Your task to perform on an android device: check data usage Image 0: 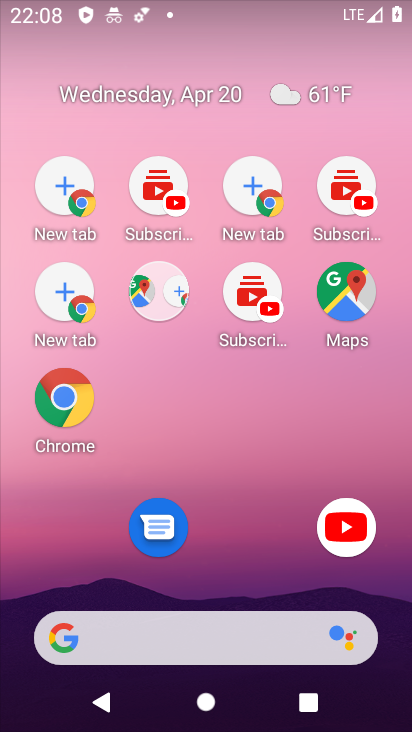
Step 0: click (161, 202)
Your task to perform on an android device: check data usage Image 1: 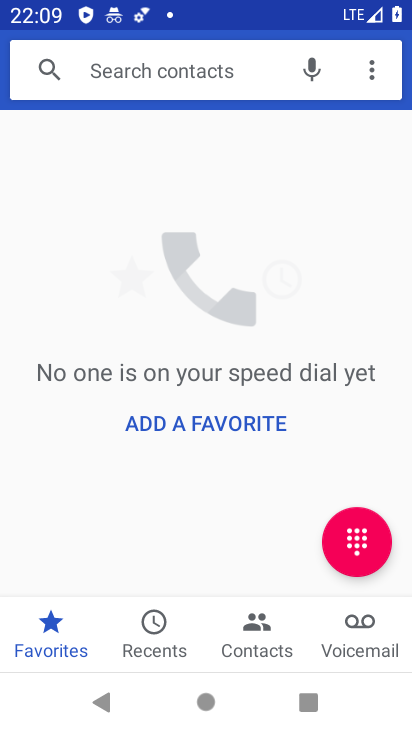
Step 1: press home button
Your task to perform on an android device: check data usage Image 2: 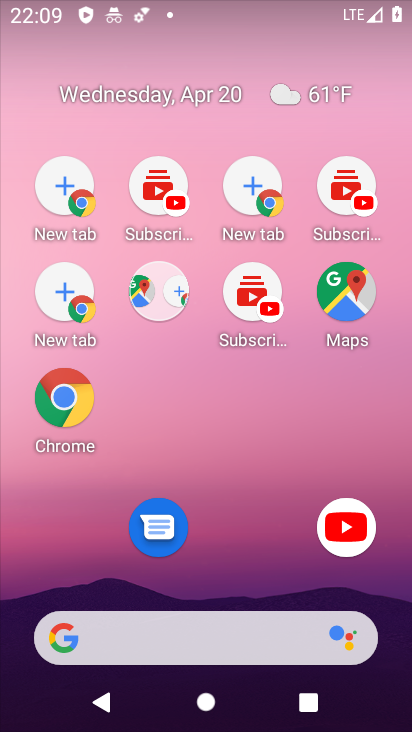
Step 2: drag from (239, 492) to (148, 254)
Your task to perform on an android device: check data usage Image 3: 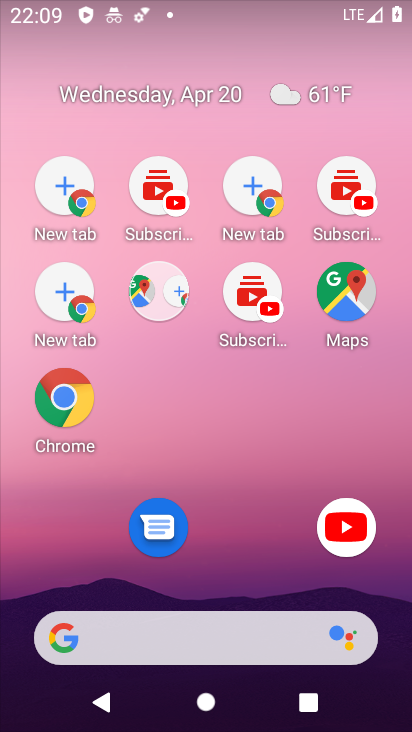
Step 3: click (175, 98)
Your task to perform on an android device: check data usage Image 4: 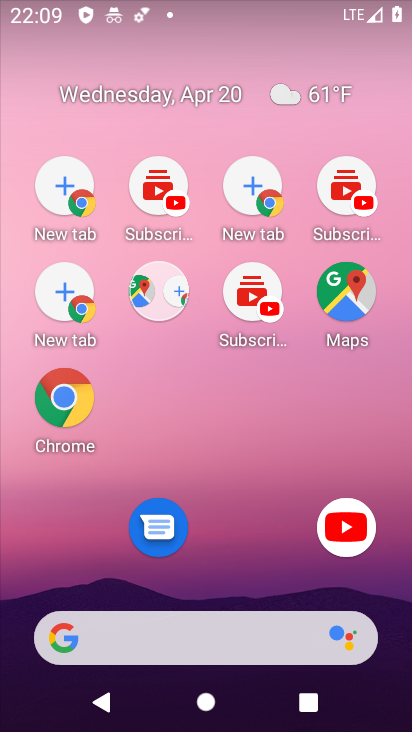
Step 4: drag from (140, 59) to (148, 123)
Your task to perform on an android device: check data usage Image 5: 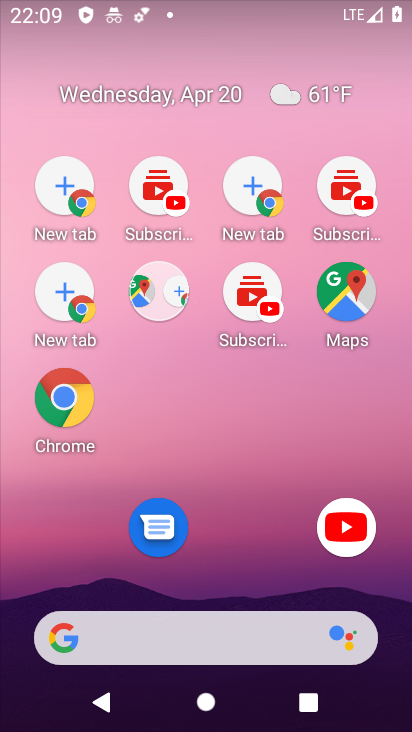
Step 5: drag from (170, 206) to (174, 39)
Your task to perform on an android device: check data usage Image 6: 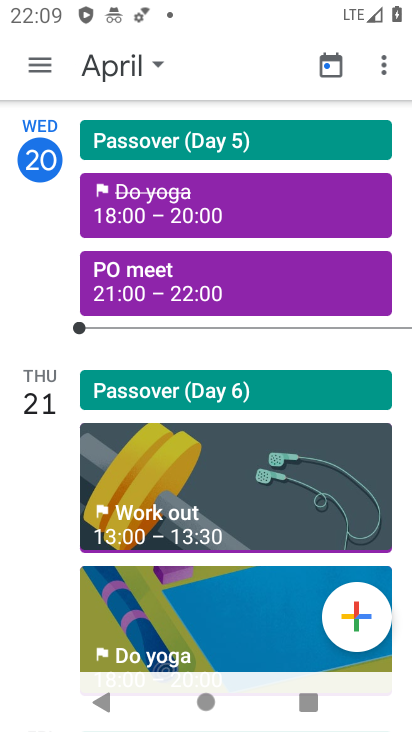
Step 6: click (37, 60)
Your task to perform on an android device: check data usage Image 7: 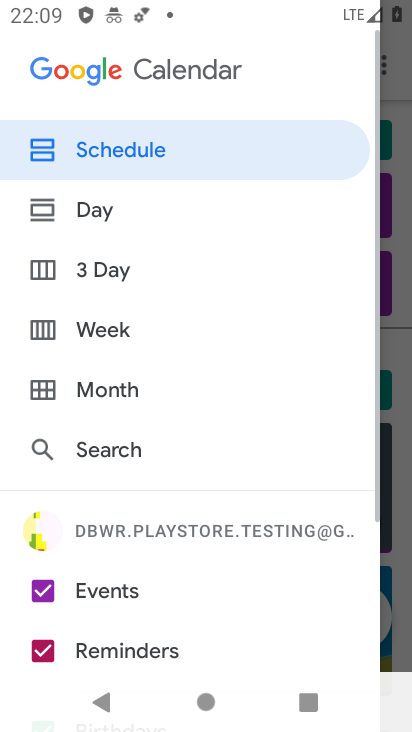
Step 7: click (406, 488)
Your task to perform on an android device: check data usage Image 8: 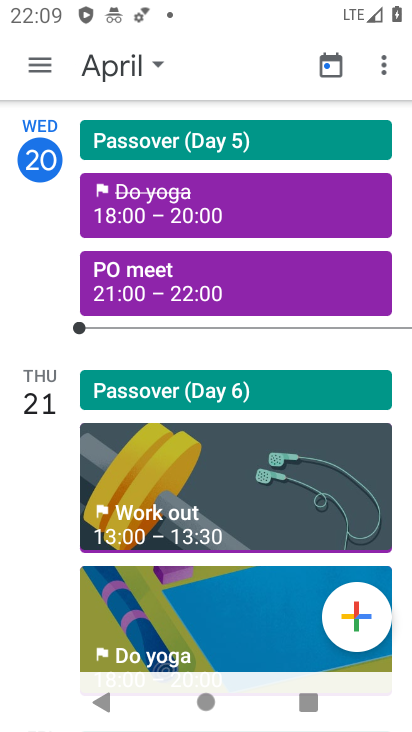
Step 8: click (393, 483)
Your task to perform on an android device: check data usage Image 9: 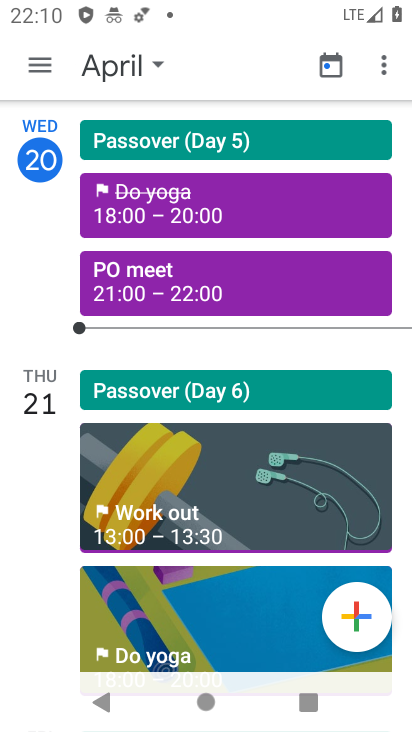
Step 9: press home button
Your task to perform on an android device: check data usage Image 10: 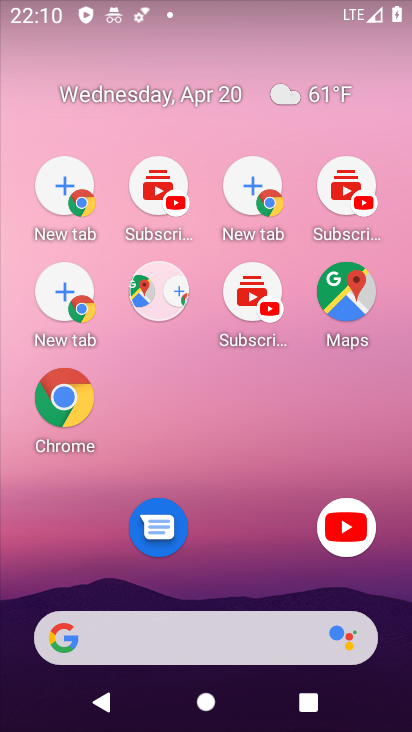
Step 10: press home button
Your task to perform on an android device: check data usage Image 11: 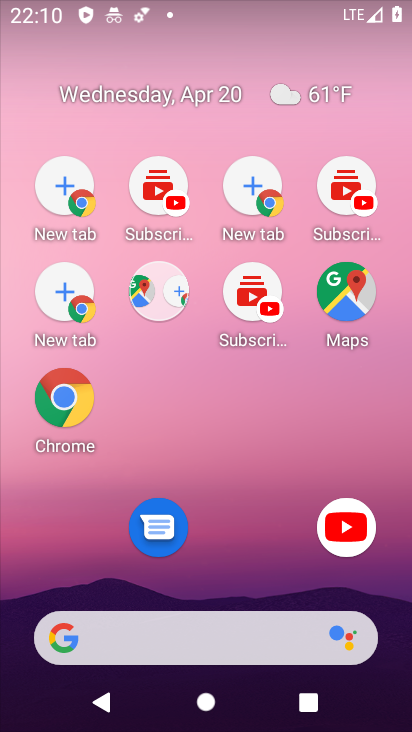
Step 11: click (145, 122)
Your task to perform on an android device: check data usage Image 12: 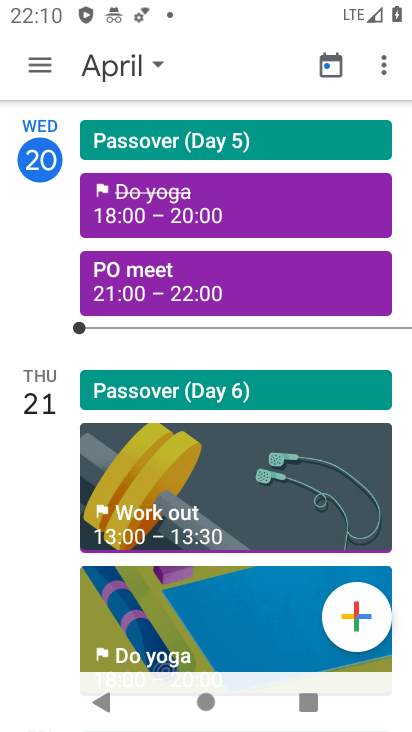
Step 12: drag from (265, 619) to (223, 155)
Your task to perform on an android device: check data usage Image 13: 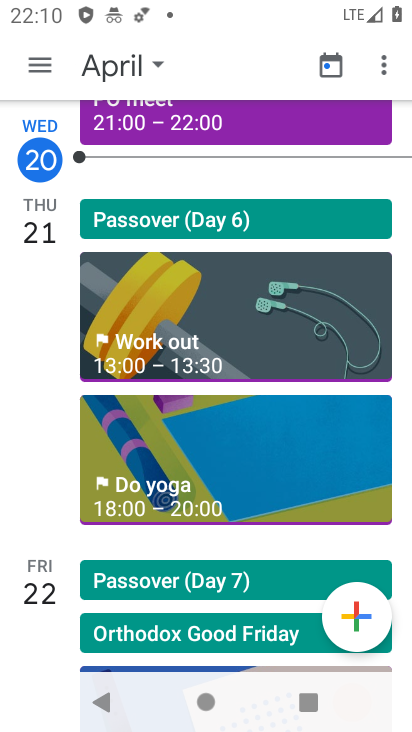
Step 13: drag from (239, 609) to (115, 57)
Your task to perform on an android device: check data usage Image 14: 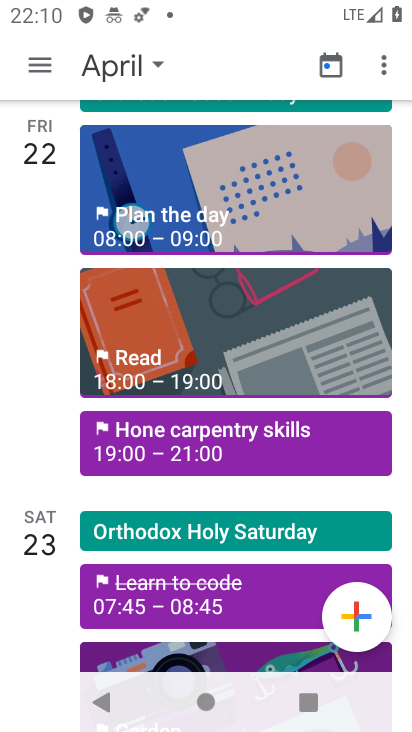
Step 14: click (104, 36)
Your task to perform on an android device: check data usage Image 15: 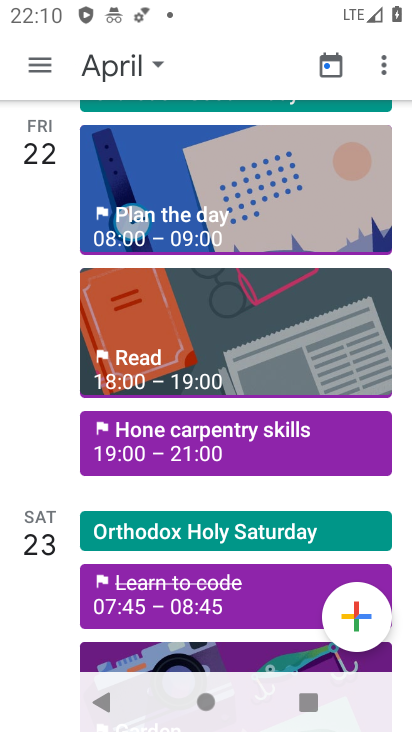
Step 15: click (88, 11)
Your task to perform on an android device: check data usage Image 16: 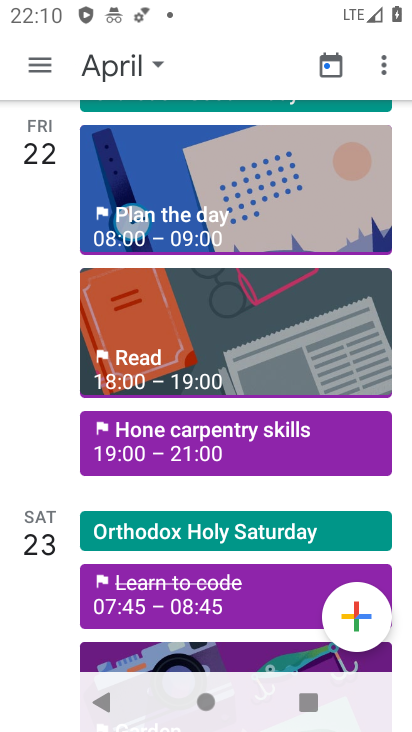
Step 16: drag from (90, 9) to (81, 43)
Your task to perform on an android device: check data usage Image 17: 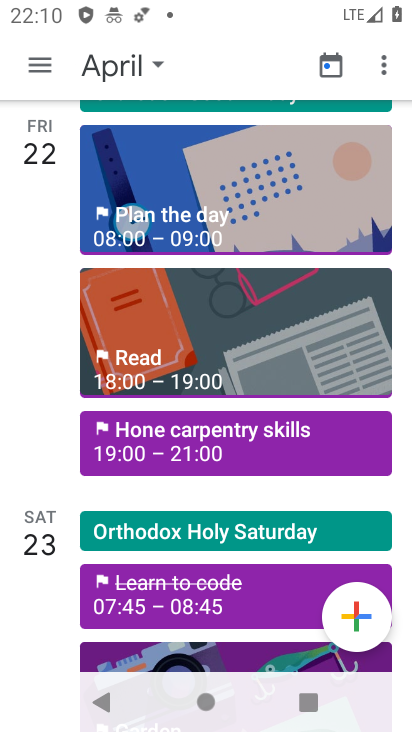
Step 17: press home button
Your task to perform on an android device: check data usage Image 18: 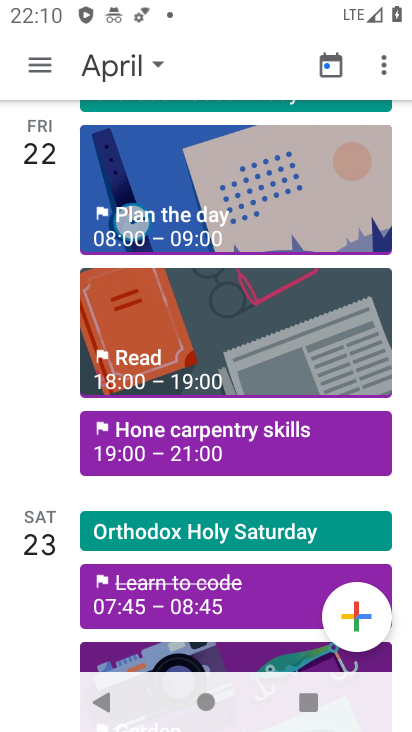
Step 18: click (375, 261)
Your task to perform on an android device: check data usage Image 19: 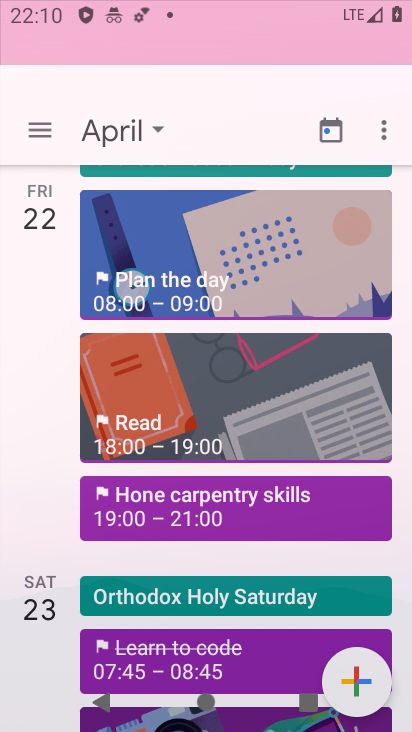
Step 19: click (62, 102)
Your task to perform on an android device: check data usage Image 20: 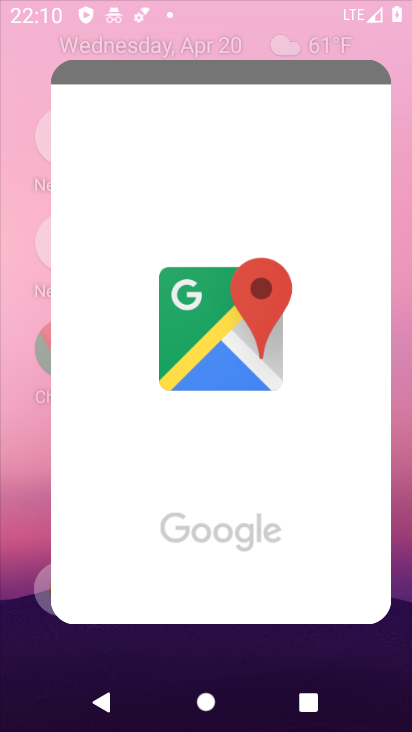
Step 20: drag from (289, 552) to (235, 242)
Your task to perform on an android device: check data usage Image 21: 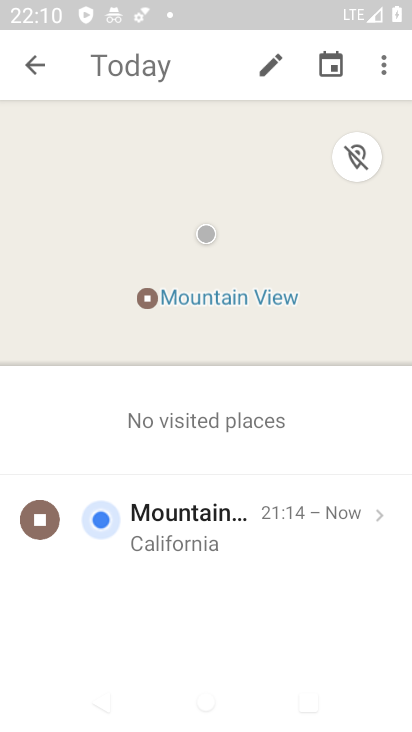
Step 21: press home button
Your task to perform on an android device: check data usage Image 22: 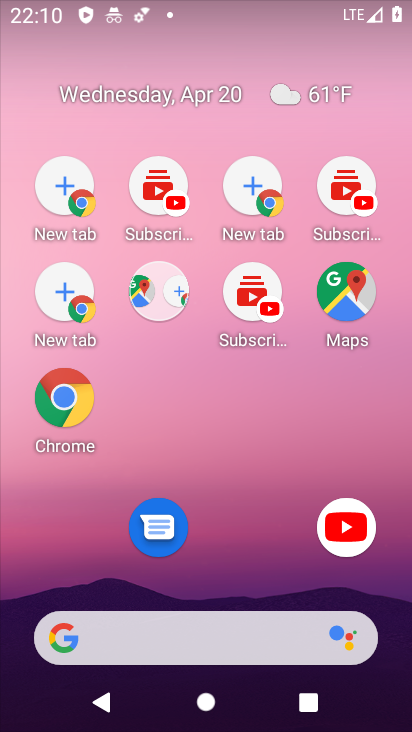
Step 22: drag from (199, 581) to (98, 180)
Your task to perform on an android device: check data usage Image 23: 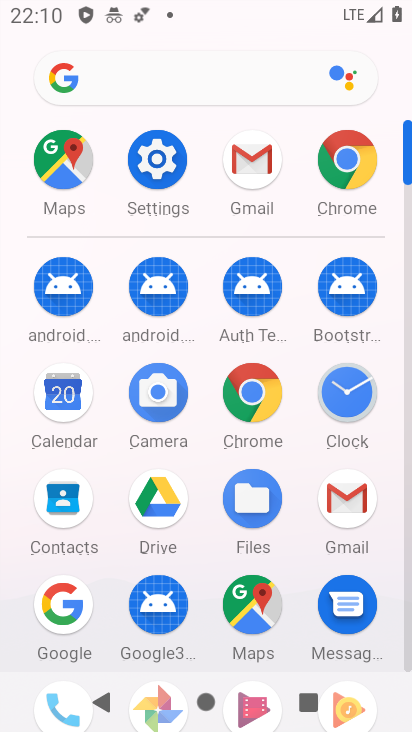
Step 23: click (160, 180)
Your task to perform on an android device: check data usage Image 24: 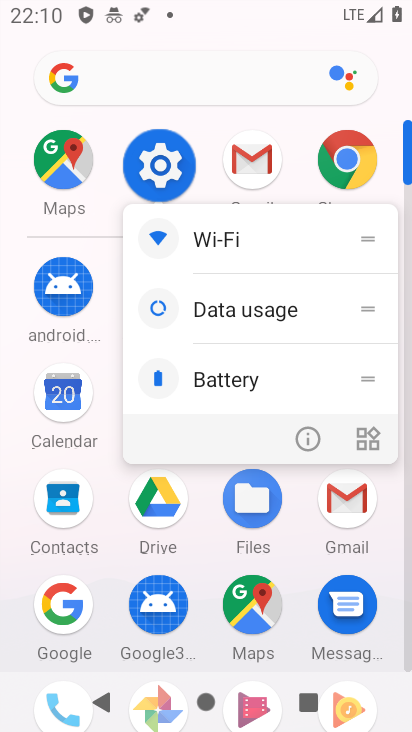
Step 24: click (160, 201)
Your task to perform on an android device: check data usage Image 25: 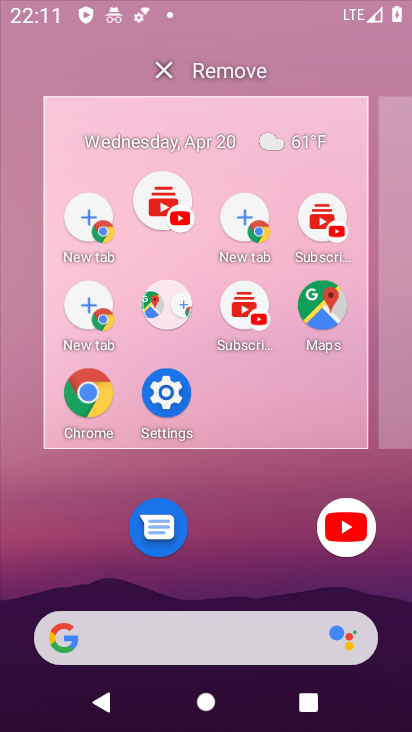
Step 25: click (154, 176)
Your task to perform on an android device: check data usage Image 26: 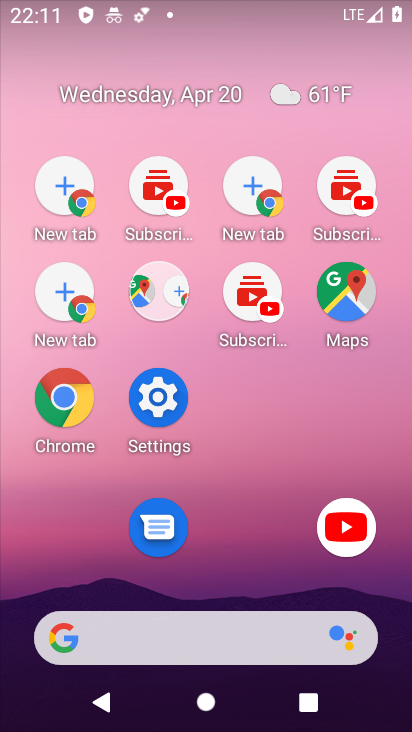
Step 26: drag from (235, 536) to (212, 84)
Your task to perform on an android device: check data usage Image 27: 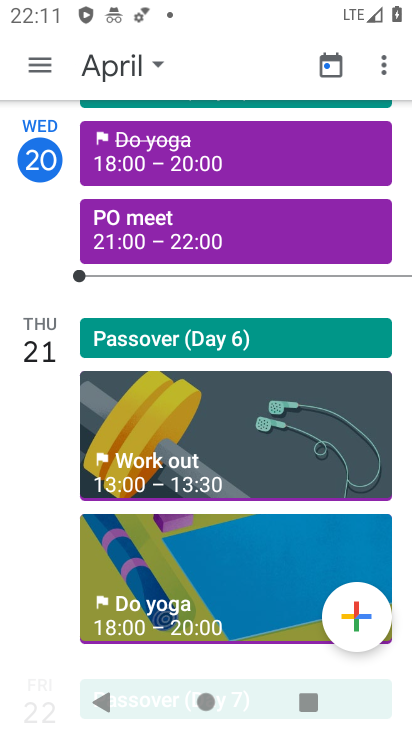
Step 27: drag from (152, 269) to (83, 88)
Your task to perform on an android device: check data usage Image 28: 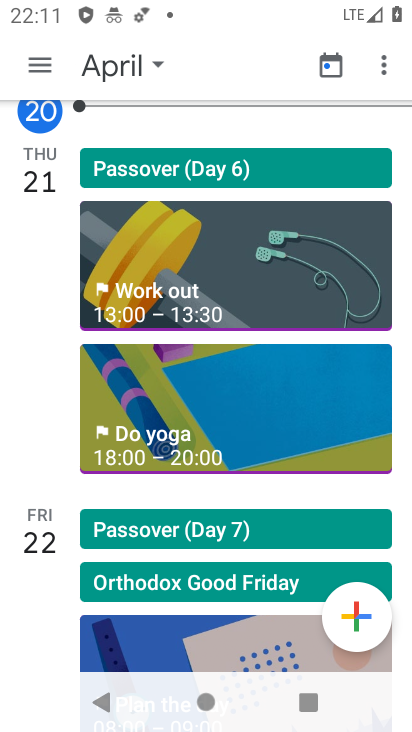
Step 28: drag from (189, 444) to (111, 2)
Your task to perform on an android device: check data usage Image 29: 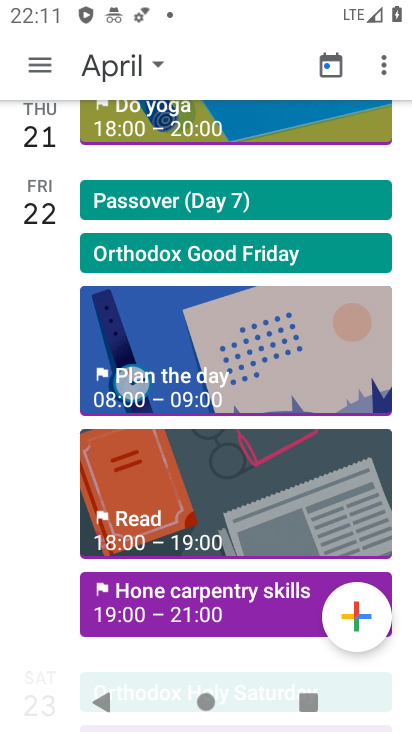
Step 29: drag from (206, 356) to (191, 8)
Your task to perform on an android device: check data usage Image 30: 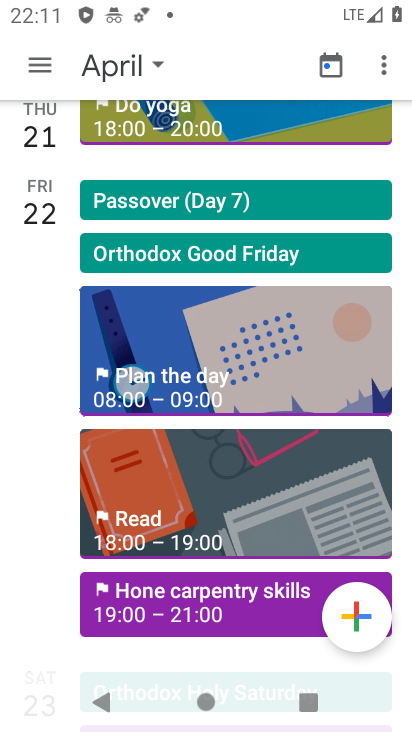
Step 30: drag from (200, 332) to (163, 21)
Your task to perform on an android device: check data usage Image 31: 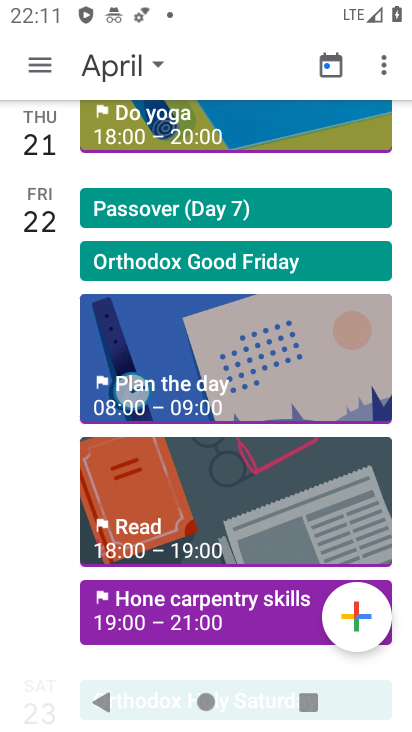
Step 31: drag from (224, 540) to (89, 119)
Your task to perform on an android device: check data usage Image 32: 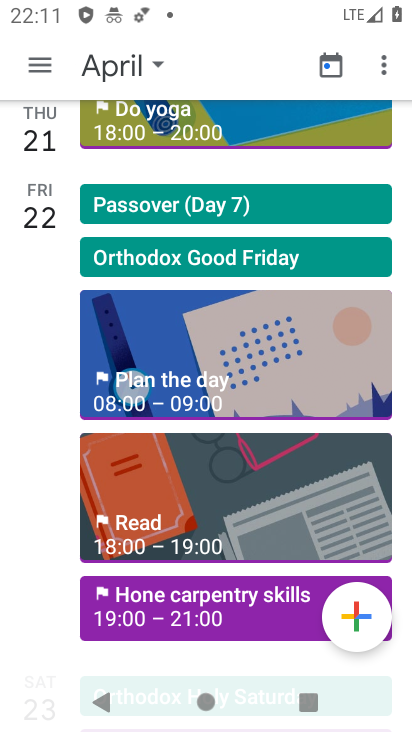
Step 32: drag from (219, 402) to (251, 5)
Your task to perform on an android device: check data usage Image 33: 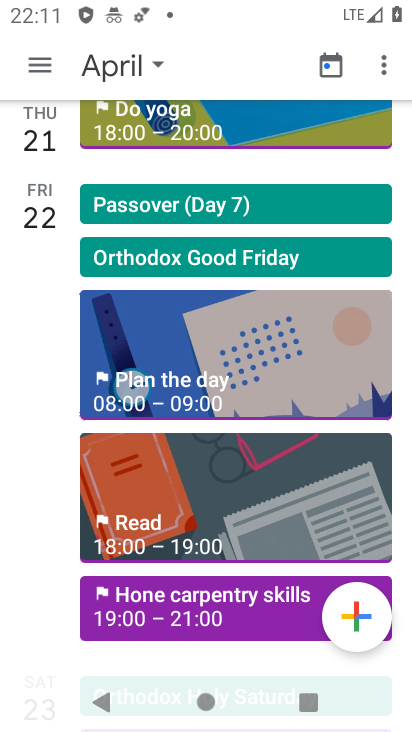
Step 33: drag from (216, 439) to (294, 101)
Your task to perform on an android device: check data usage Image 34: 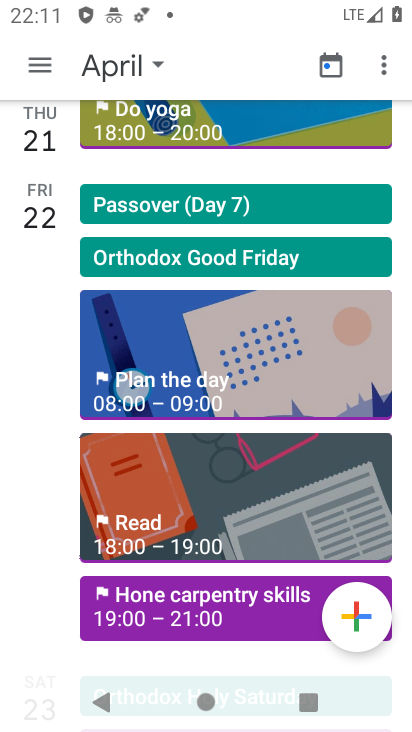
Step 34: drag from (196, 315) to (190, 256)
Your task to perform on an android device: check data usage Image 35: 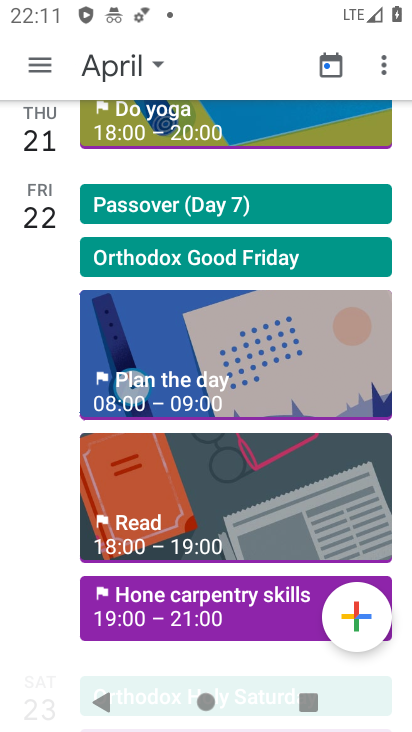
Step 35: drag from (184, 408) to (146, 153)
Your task to perform on an android device: check data usage Image 36: 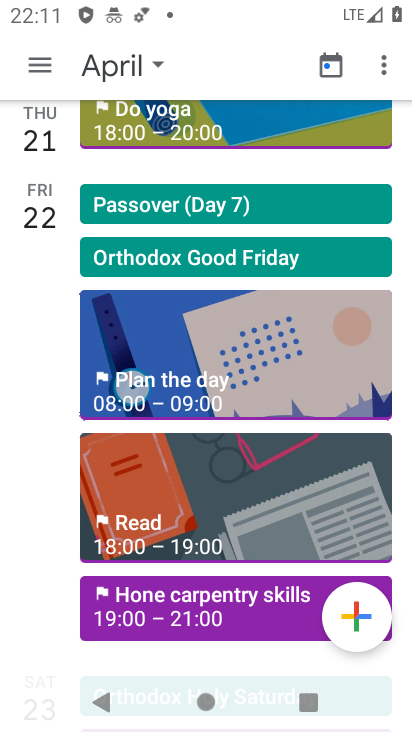
Step 36: drag from (199, 430) to (164, 231)
Your task to perform on an android device: check data usage Image 37: 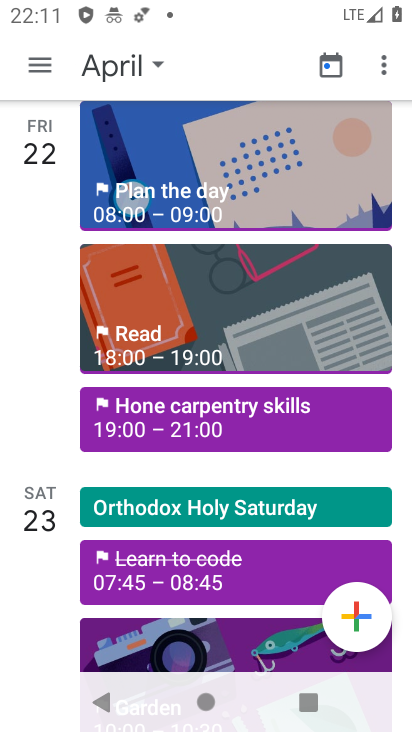
Step 37: press home button
Your task to perform on an android device: check data usage Image 38: 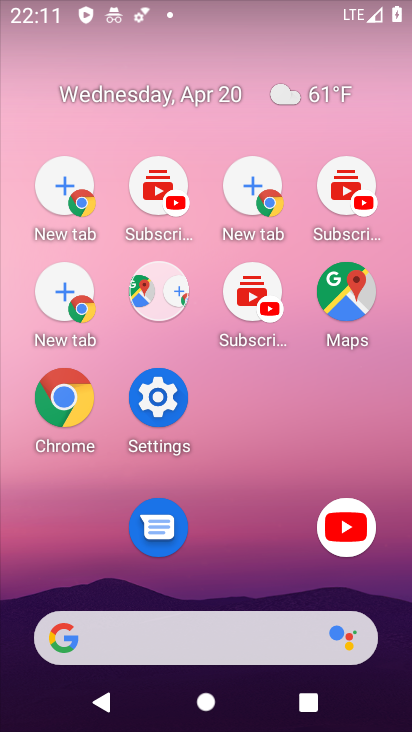
Step 38: drag from (269, 702) to (226, 283)
Your task to perform on an android device: check data usage Image 39: 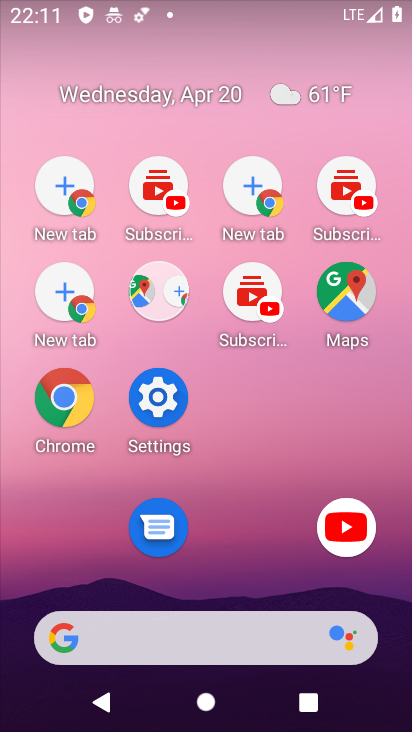
Step 39: drag from (252, 689) to (211, 345)
Your task to perform on an android device: check data usage Image 40: 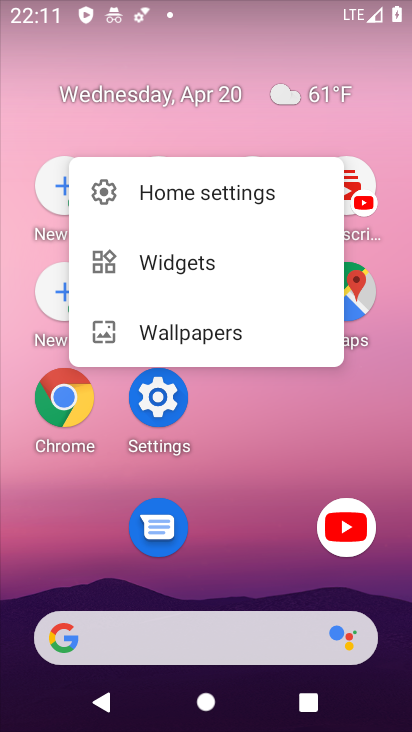
Step 40: click (328, 117)
Your task to perform on an android device: check data usage Image 41: 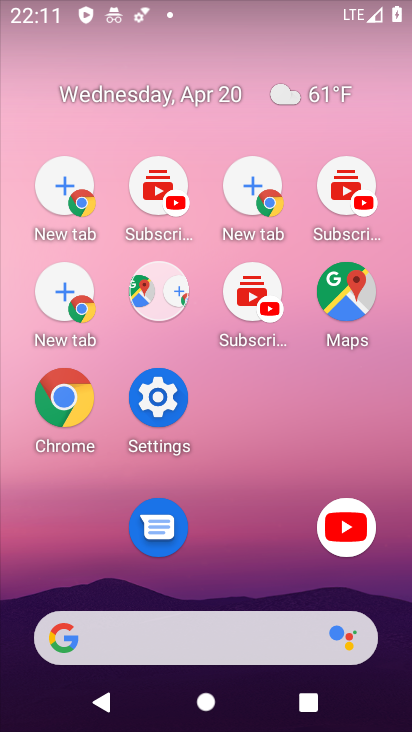
Step 41: click (332, 129)
Your task to perform on an android device: check data usage Image 42: 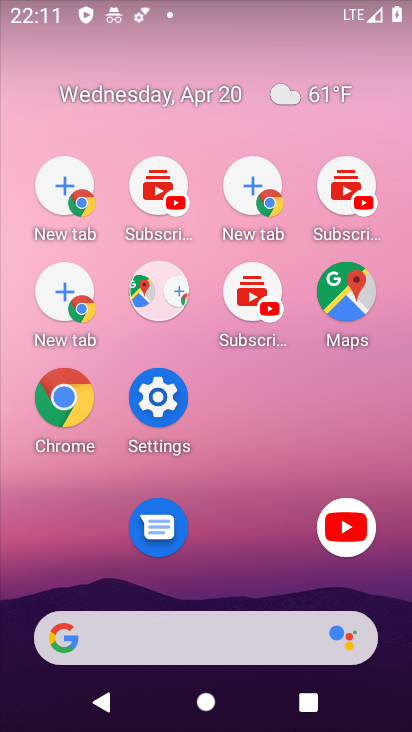
Step 42: drag from (353, 650) to (150, 292)
Your task to perform on an android device: check data usage Image 43: 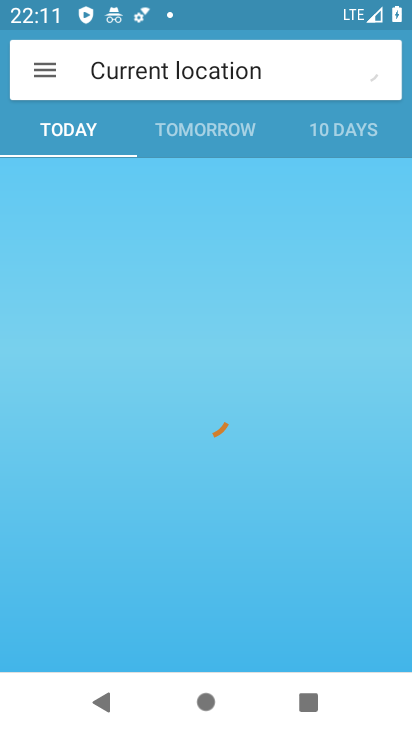
Step 43: drag from (276, 686) to (264, 118)
Your task to perform on an android device: check data usage Image 44: 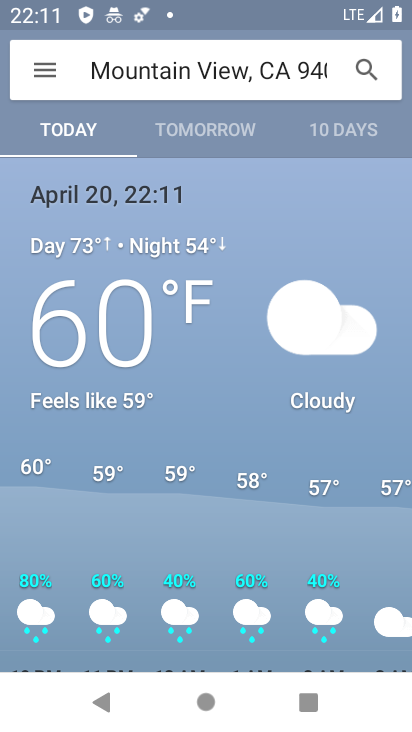
Step 44: click (208, 708)
Your task to perform on an android device: check data usage Image 45: 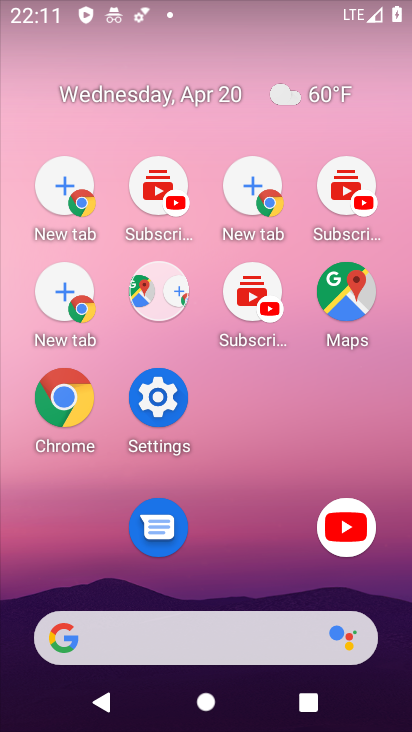
Step 45: click (154, 409)
Your task to perform on an android device: check data usage Image 46: 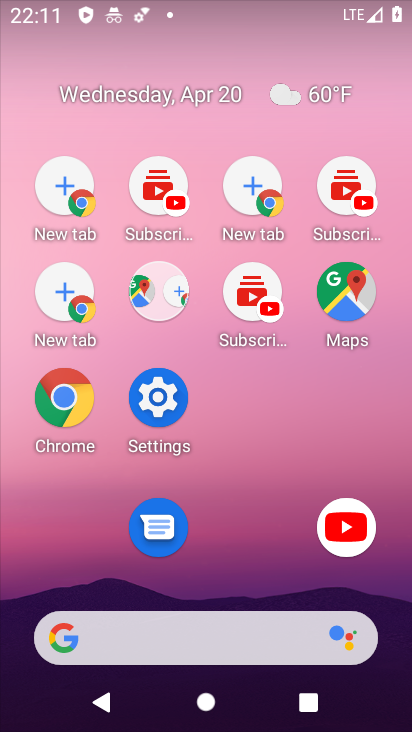
Step 46: click (154, 409)
Your task to perform on an android device: check data usage Image 47: 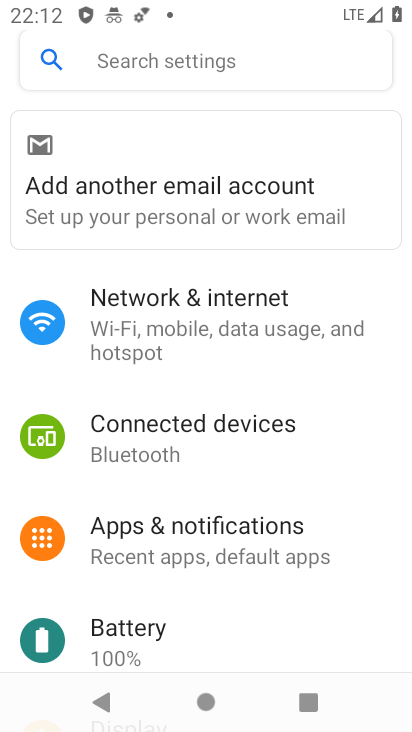
Step 47: click (181, 320)
Your task to perform on an android device: check data usage Image 48: 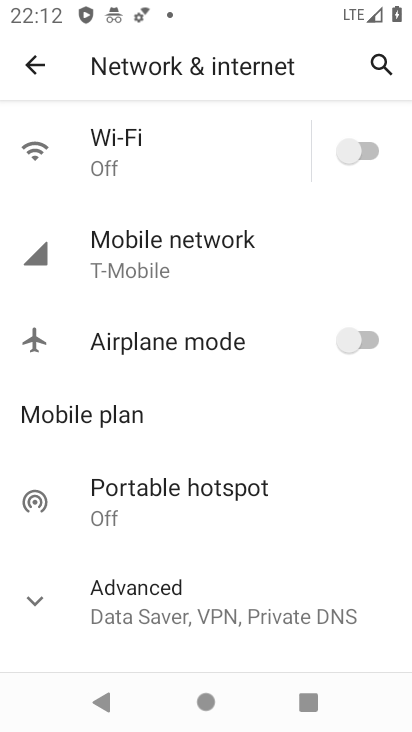
Step 48: task complete